Your task to perform on an android device: clear all cookies in the chrome app Image 0: 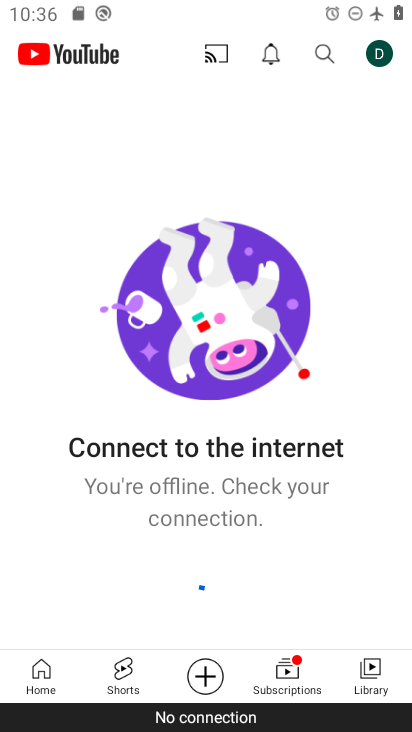
Step 0: press home button
Your task to perform on an android device: clear all cookies in the chrome app Image 1: 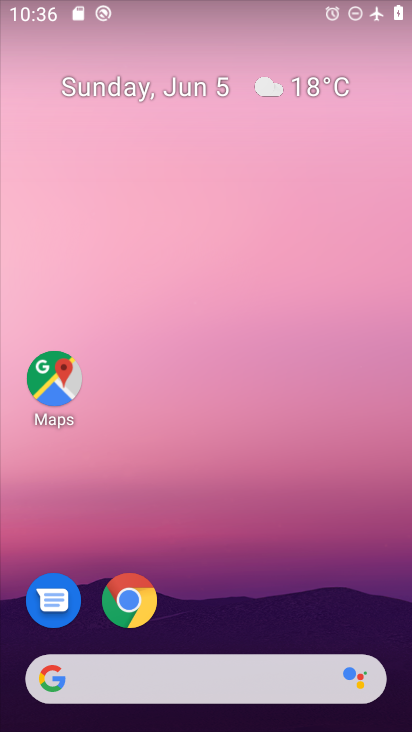
Step 1: click (144, 597)
Your task to perform on an android device: clear all cookies in the chrome app Image 2: 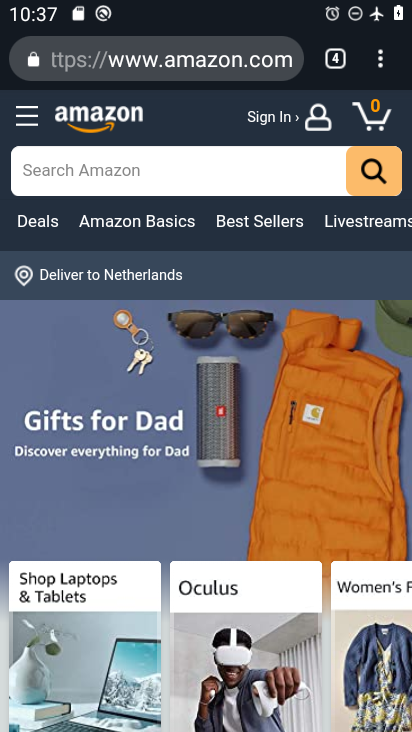
Step 2: click (382, 64)
Your task to perform on an android device: clear all cookies in the chrome app Image 3: 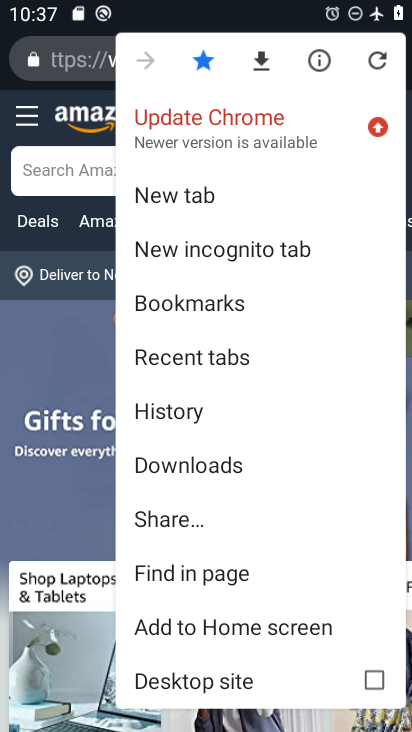
Step 3: drag from (237, 515) to (272, 193)
Your task to perform on an android device: clear all cookies in the chrome app Image 4: 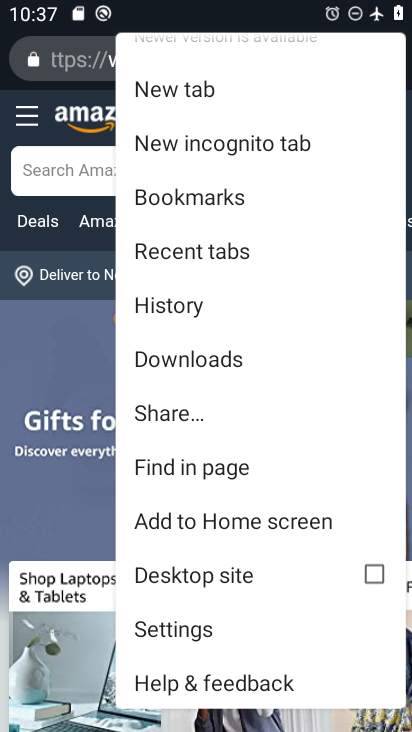
Step 4: click (212, 621)
Your task to perform on an android device: clear all cookies in the chrome app Image 5: 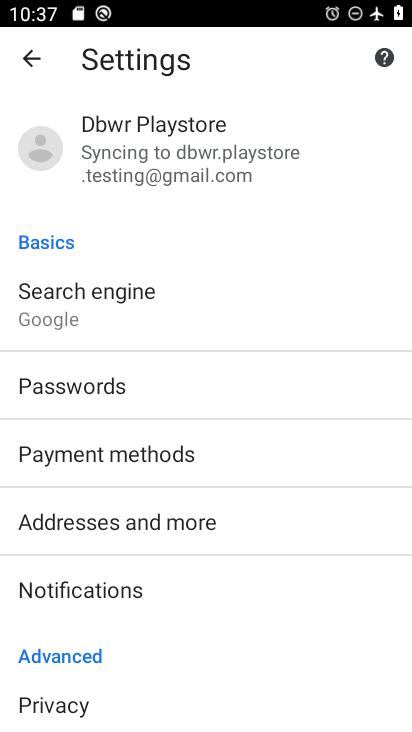
Step 5: click (248, 712)
Your task to perform on an android device: clear all cookies in the chrome app Image 6: 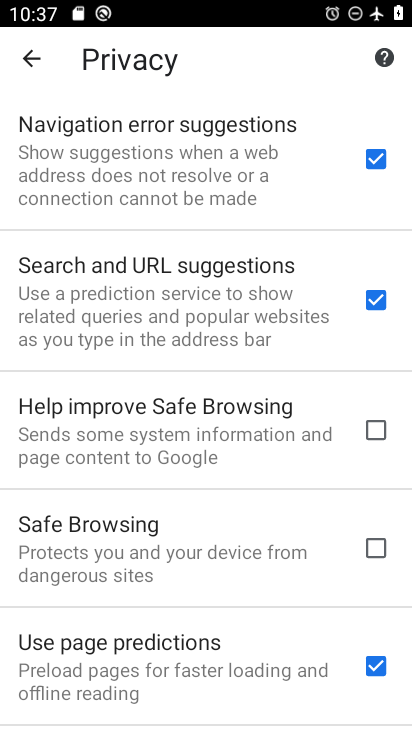
Step 6: drag from (268, 568) to (210, 140)
Your task to perform on an android device: clear all cookies in the chrome app Image 7: 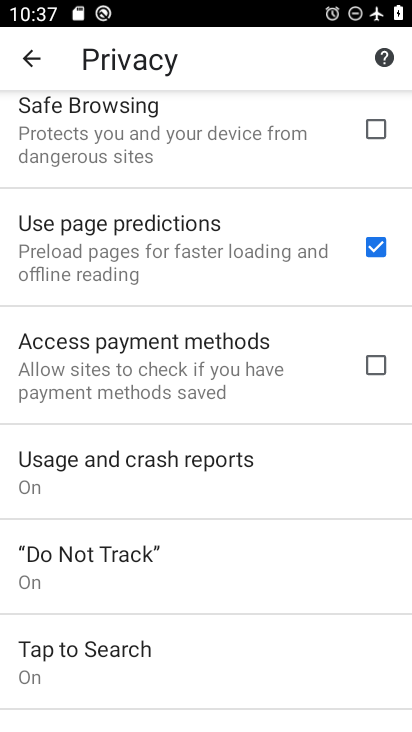
Step 7: drag from (238, 573) to (221, 265)
Your task to perform on an android device: clear all cookies in the chrome app Image 8: 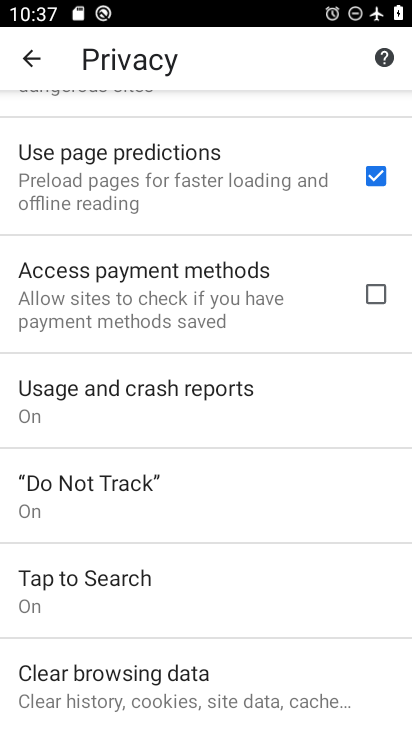
Step 8: click (259, 682)
Your task to perform on an android device: clear all cookies in the chrome app Image 9: 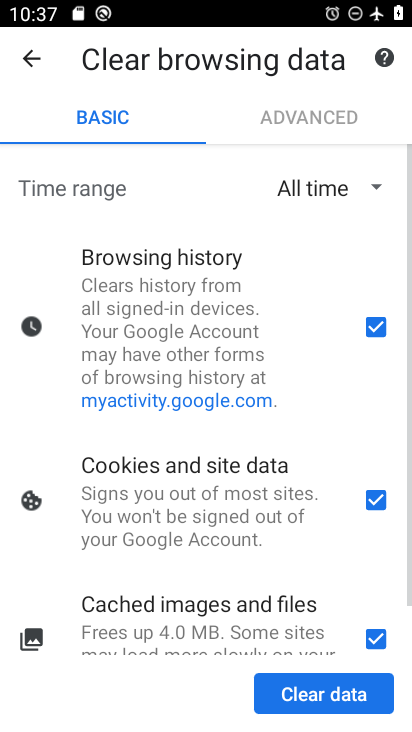
Step 9: click (383, 627)
Your task to perform on an android device: clear all cookies in the chrome app Image 10: 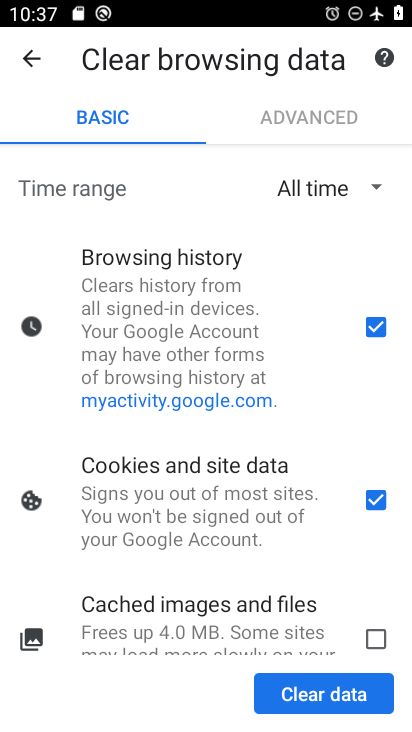
Step 10: click (368, 315)
Your task to perform on an android device: clear all cookies in the chrome app Image 11: 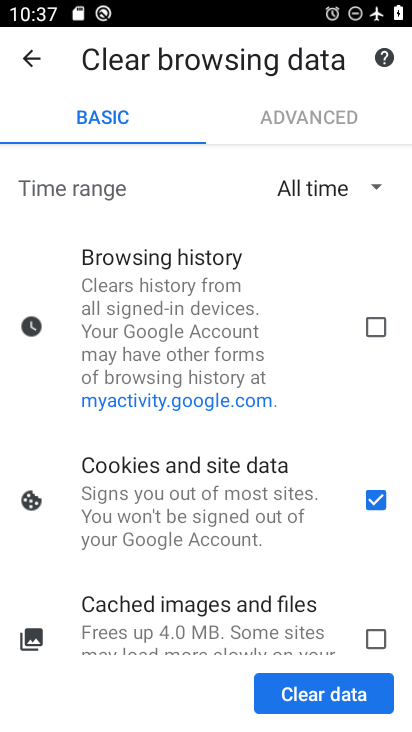
Step 11: task complete